Your task to perform on an android device: What's the weather going to be tomorrow? Image 0: 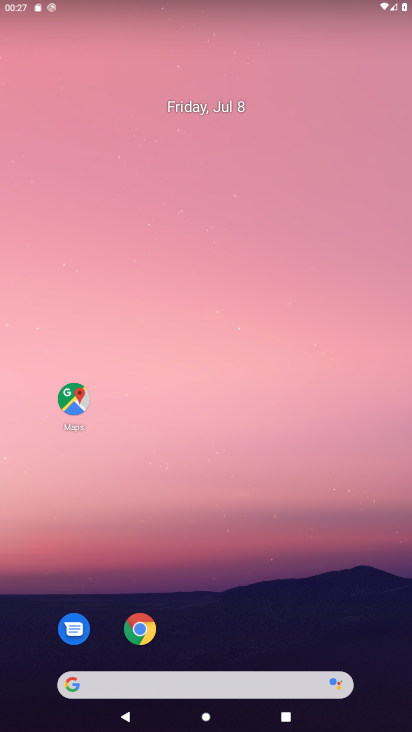
Step 0: click (202, 687)
Your task to perform on an android device: What's the weather going to be tomorrow? Image 1: 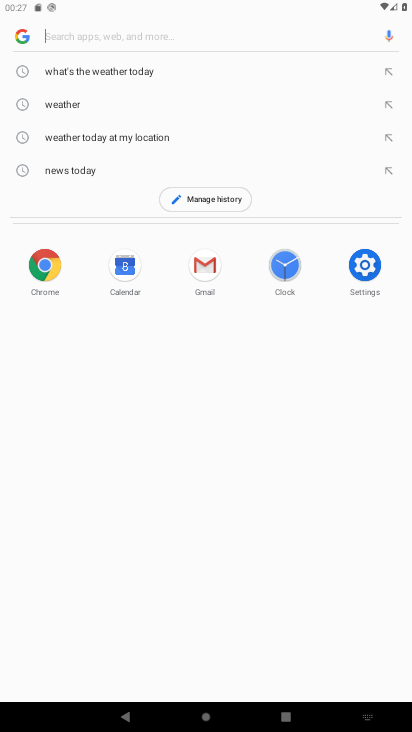
Step 1: type "what's the weather going to be tomorrow "
Your task to perform on an android device: What's the weather going to be tomorrow? Image 2: 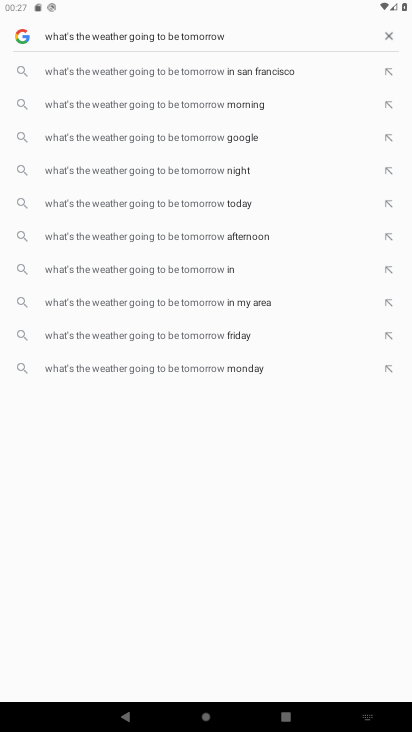
Step 2: click (227, 137)
Your task to perform on an android device: What's the weather going to be tomorrow? Image 3: 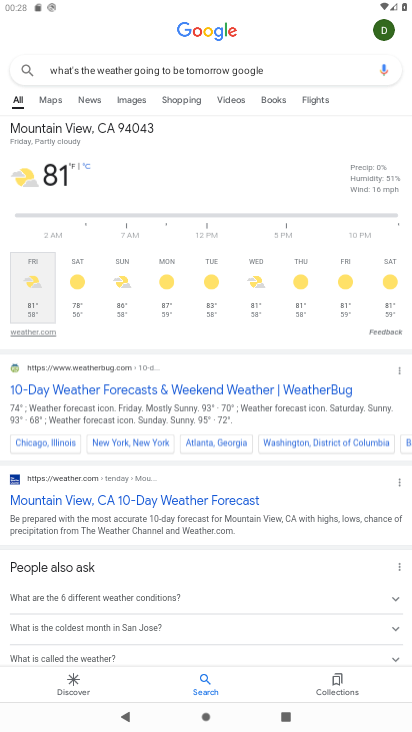
Step 3: task complete